Your task to perform on an android device: search for starred emails in the gmail app Image 0: 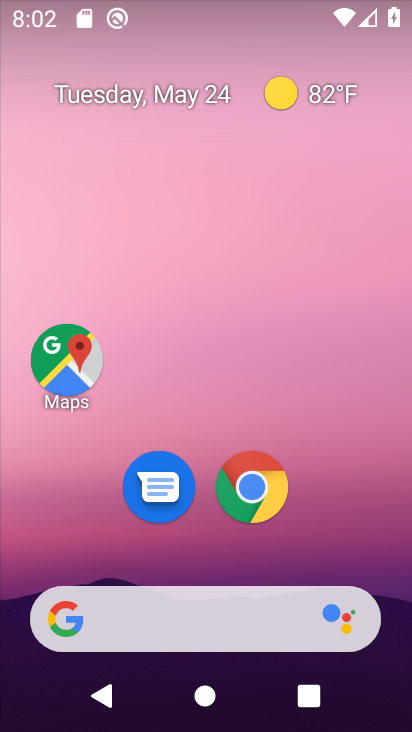
Step 0: drag from (352, 505) to (333, 118)
Your task to perform on an android device: search for starred emails in the gmail app Image 1: 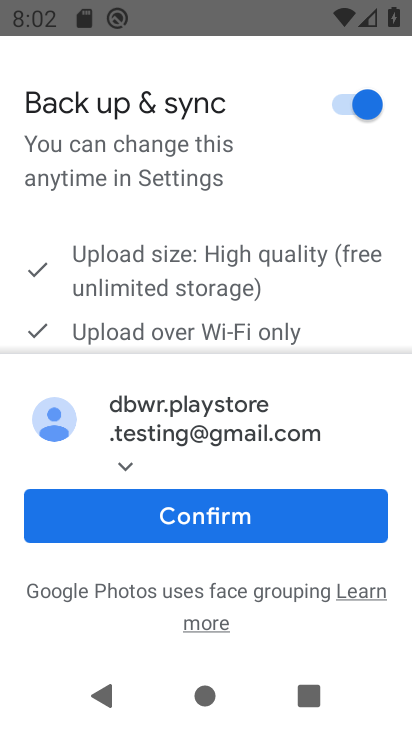
Step 1: click (292, 526)
Your task to perform on an android device: search for starred emails in the gmail app Image 2: 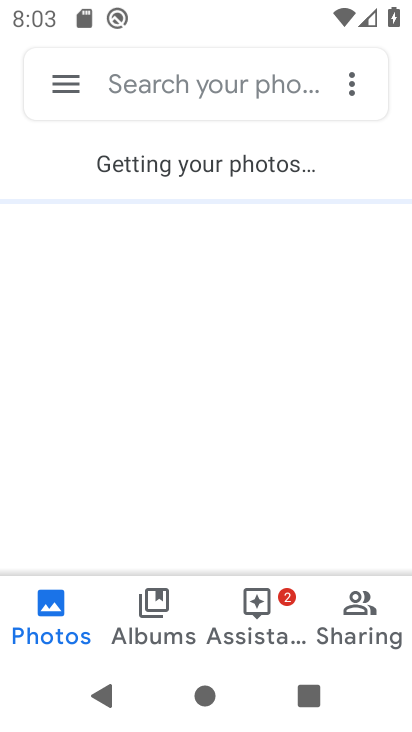
Step 2: press home button
Your task to perform on an android device: search for starred emails in the gmail app Image 3: 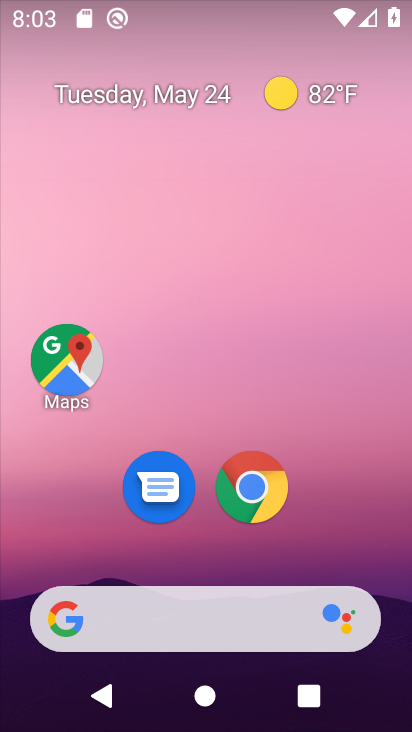
Step 3: drag from (359, 537) to (344, 87)
Your task to perform on an android device: search for starred emails in the gmail app Image 4: 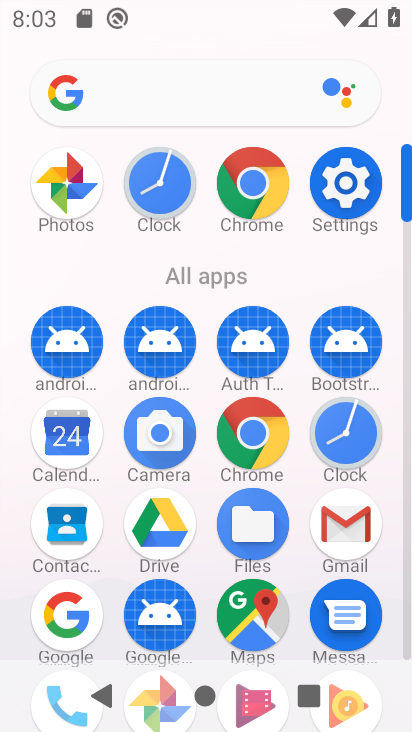
Step 4: click (340, 523)
Your task to perform on an android device: search for starred emails in the gmail app Image 5: 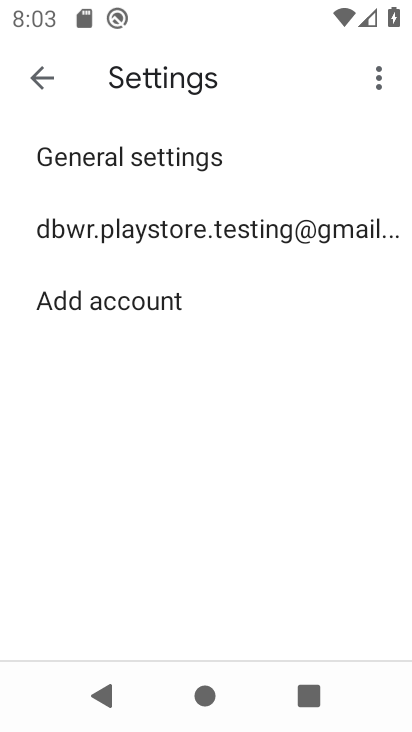
Step 5: click (366, 230)
Your task to perform on an android device: search for starred emails in the gmail app Image 6: 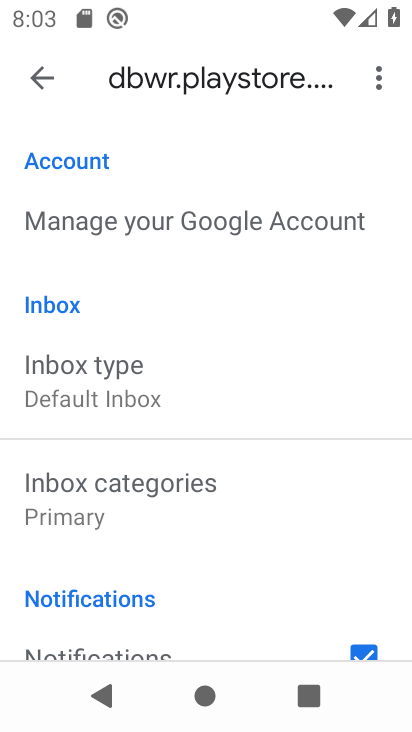
Step 6: drag from (247, 575) to (253, 236)
Your task to perform on an android device: search for starred emails in the gmail app Image 7: 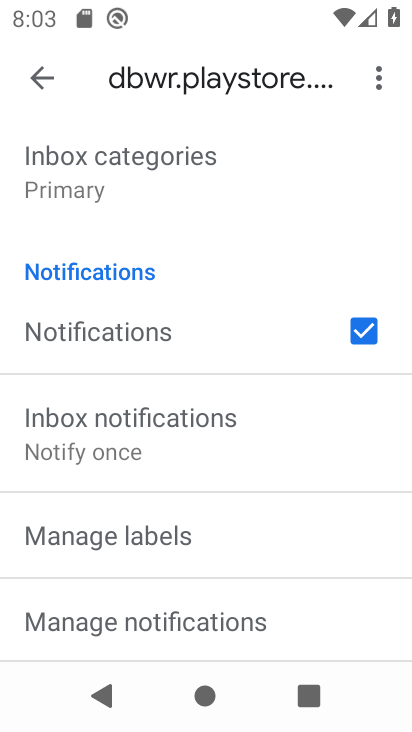
Step 7: click (27, 79)
Your task to perform on an android device: search for starred emails in the gmail app Image 8: 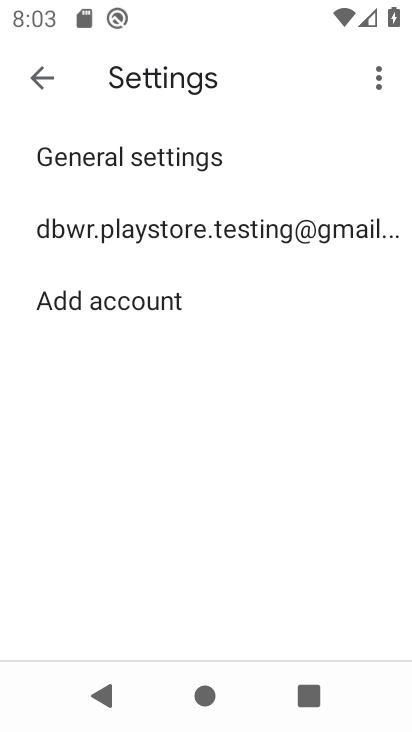
Step 8: click (27, 79)
Your task to perform on an android device: search for starred emails in the gmail app Image 9: 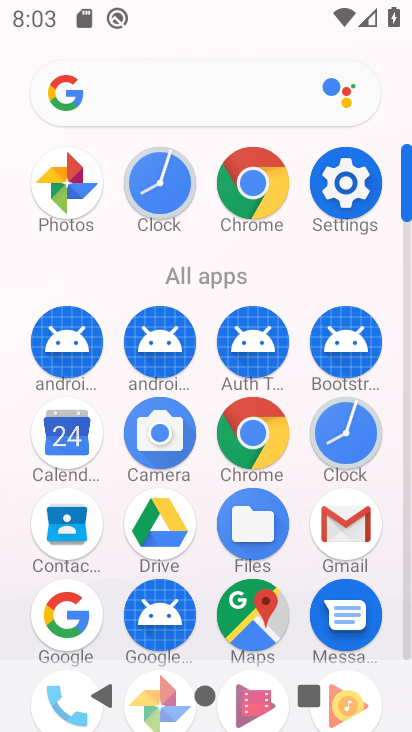
Step 9: click (333, 516)
Your task to perform on an android device: search for starred emails in the gmail app Image 10: 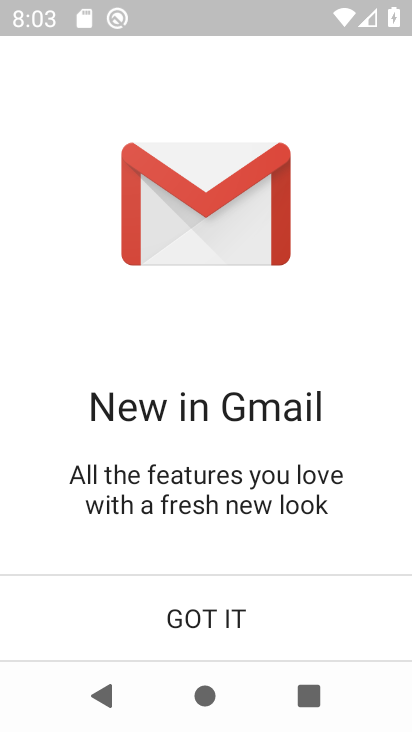
Step 10: click (222, 619)
Your task to perform on an android device: search for starred emails in the gmail app Image 11: 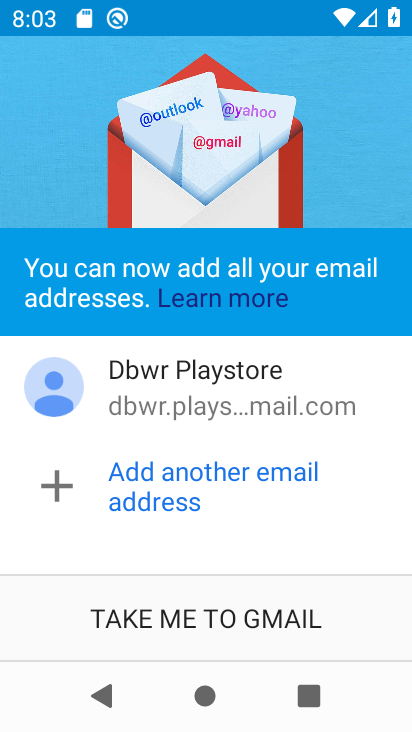
Step 11: click (208, 610)
Your task to perform on an android device: search for starred emails in the gmail app Image 12: 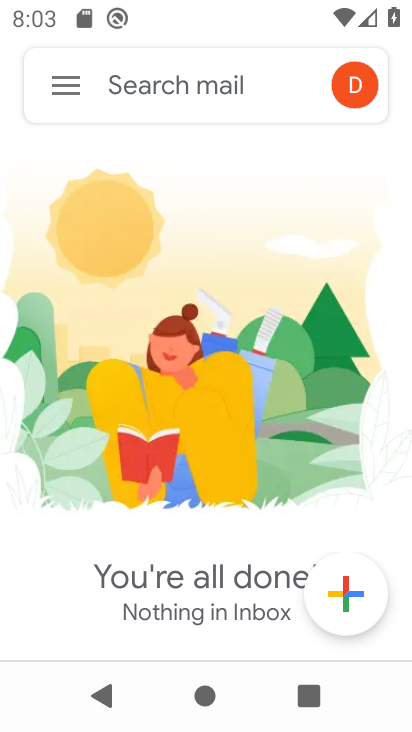
Step 12: click (73, 91)
Your task to perform on an android device: search for starred emails in the gmail app Image 13: 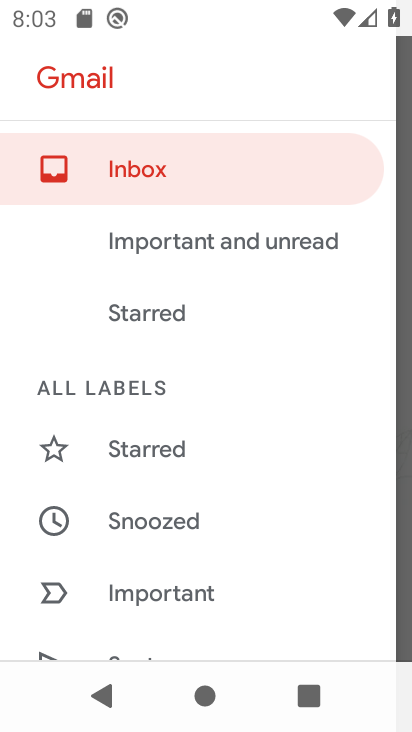
Step 13: click (194, 460)
Your task to perform on an android device: search for starred emails in the gmail app Image 14: 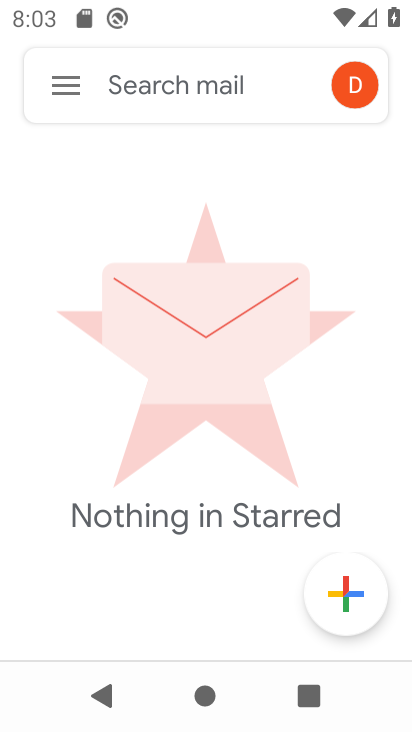
Step 14: task complete